Your task to perform on an android device: Open Chrome and go to the settings page Image 0: 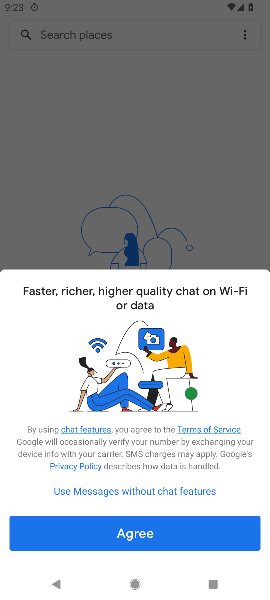
Step 0: press home button
Your task to perform on an android device: Open Chrome and go to the settings page Image 1: 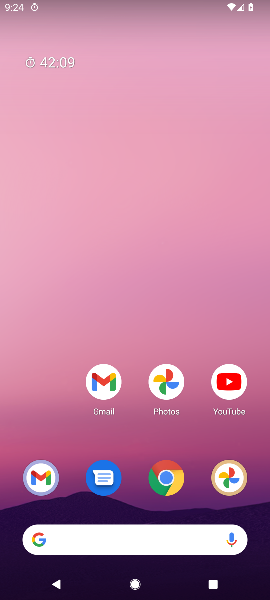
Step 1: click (168, 477)
Your task to perform on an android device: Open Chrome and go to the settings page Image 2: 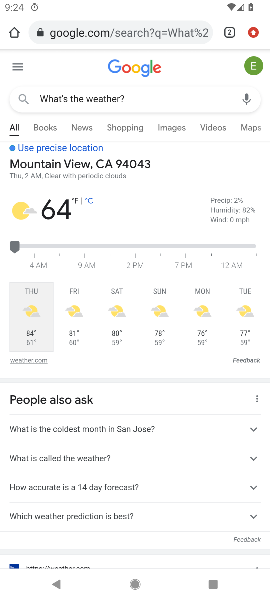
Step 2: click (251, 38)
Your task to perform on an android device: Open Chrome and go to the settings page Image 3: 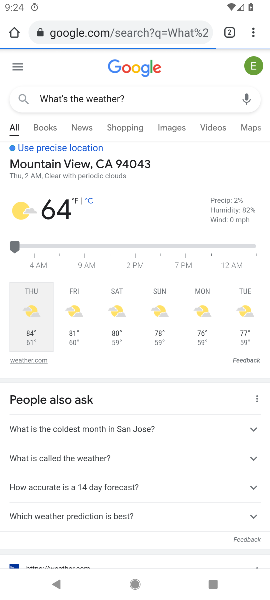
Step 3: task complete